Your task to perform on an android device: change the upload size in google photos Image 0: 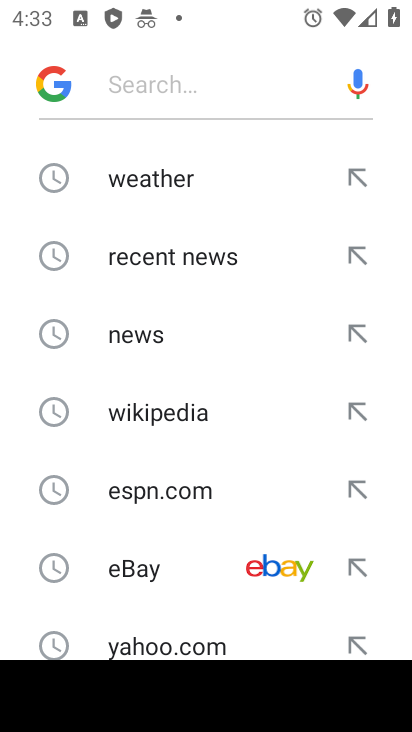
Step 0: press home button
Your task to perform on an android device: change the upload size in google photos Image 1: 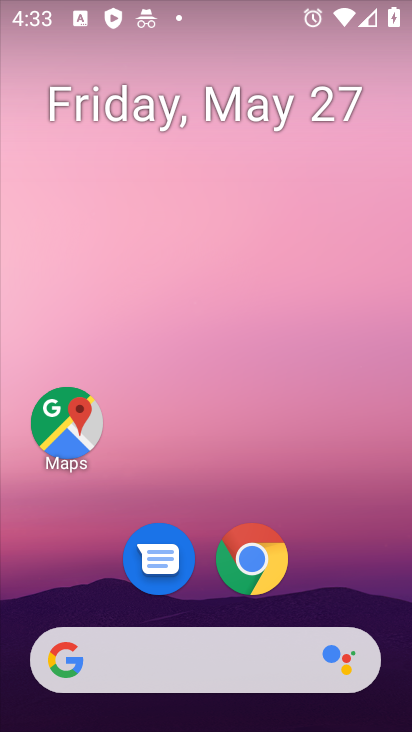
Step 1: drag from (322, 680) to (279, 41)
Your task to perform on an android device: change the upload size in google photos Image 2: 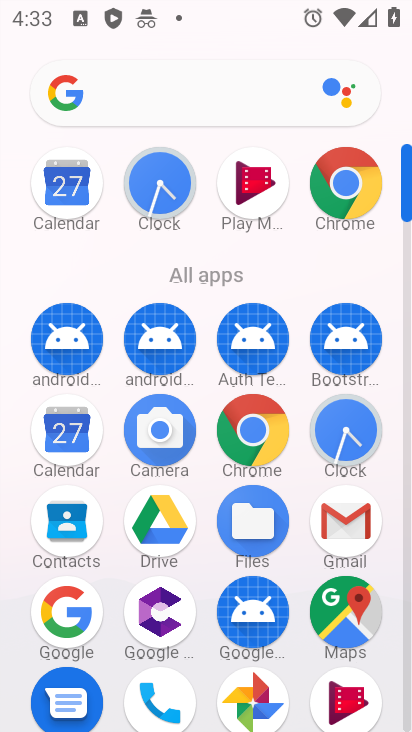
Step 2: drag from (287, 615) to (300, 145)
Your task to perform on an android device: change the upload size in google photos Image 3: 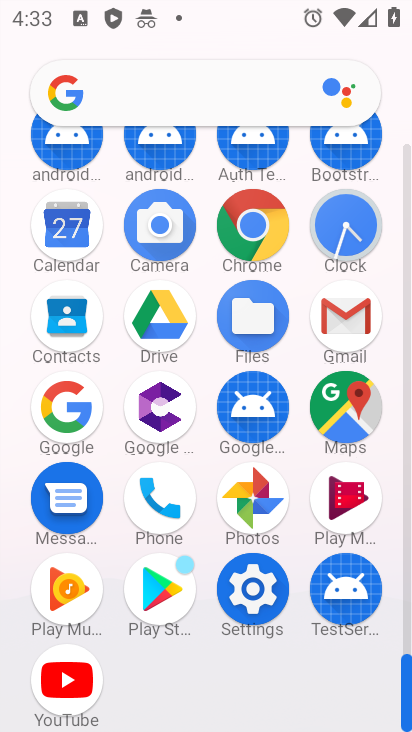
Step 3: click (257, 502)
Your task to perform on an android device: change the upload size in google photos Image 4: 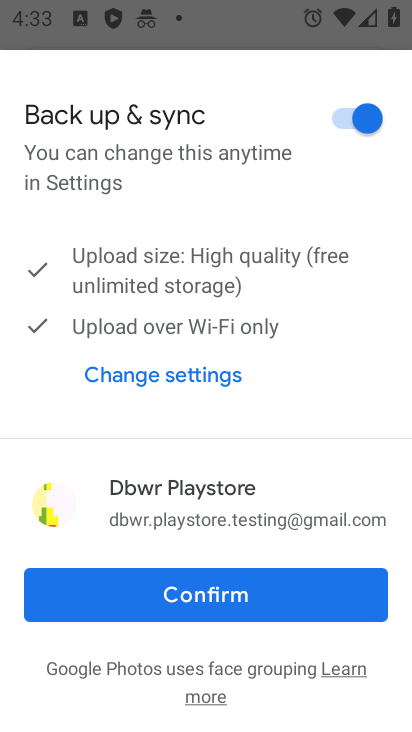
Step 4: click (232, 610)
Your task to perform on an android device: change the upload size in google photos Image 5: 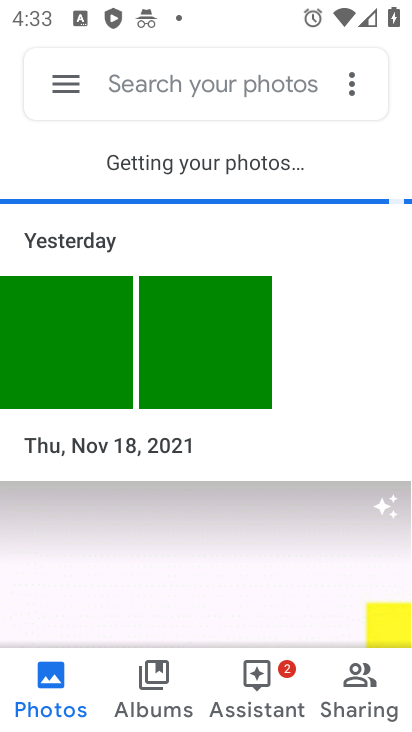
Step 5: click (357, 84)
Your task to perform on an android device: change the upload size in google photos Image 6: 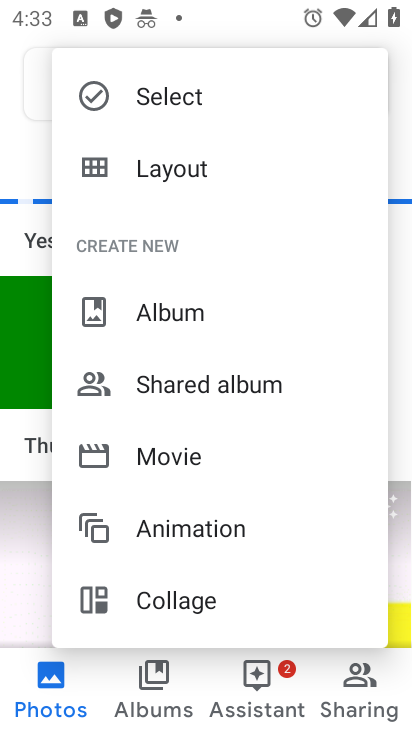
Step 6: click (28, 162)
Your task to perform on an android device: change the upload size in google photos Image 7: 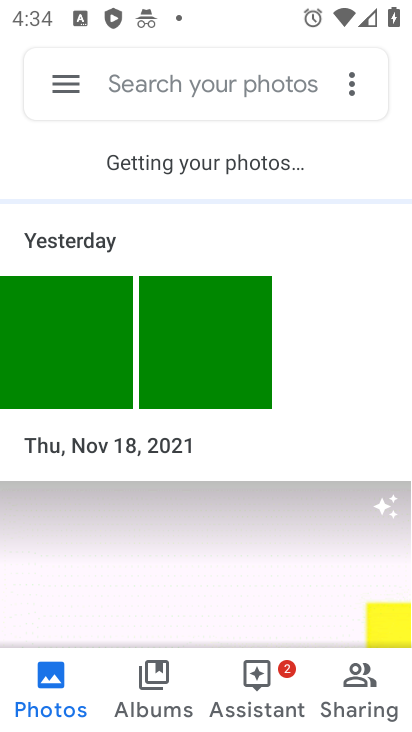
Step 7: click (57, 85)
Your task to perform on an android device: change the upload size in google photos Image 8: 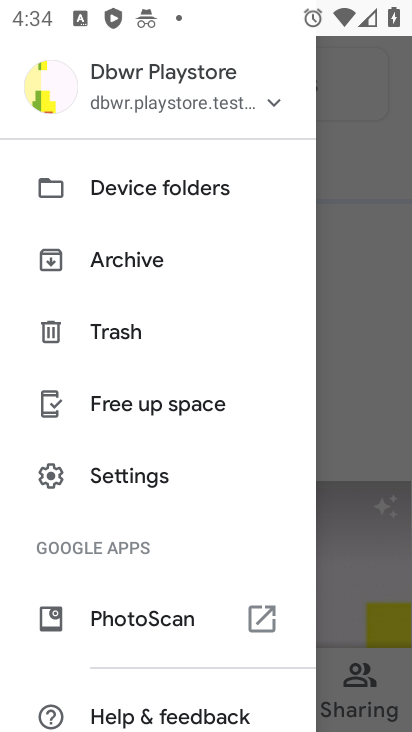
Step 8: click (159, 478)
Your task to perform on an android device: change the upload size in google photos Image 9: 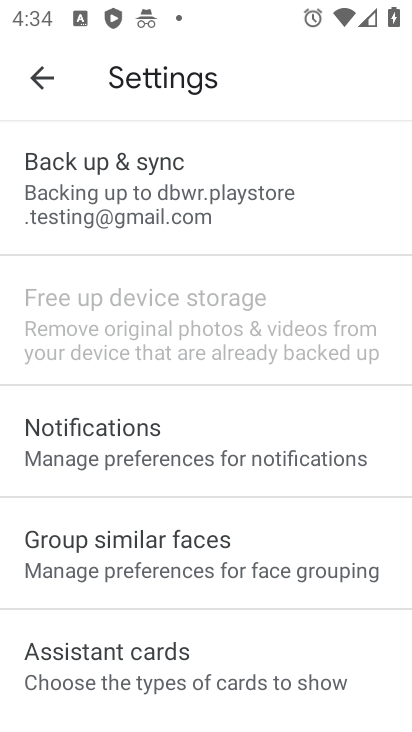
Step 9: click (147, 195)
Your task to perform on an android device: change the upload size in google photos Image 10: 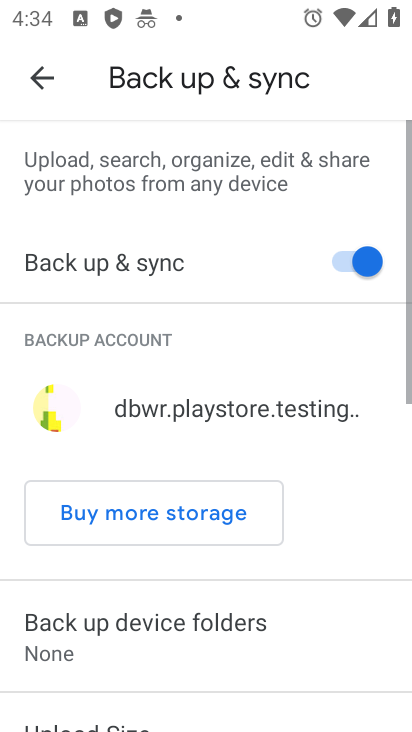
Step 10: drag from (255, 552) to (255, 125)
Your task to perform on an android device: change the upload size in google photos Image 11: 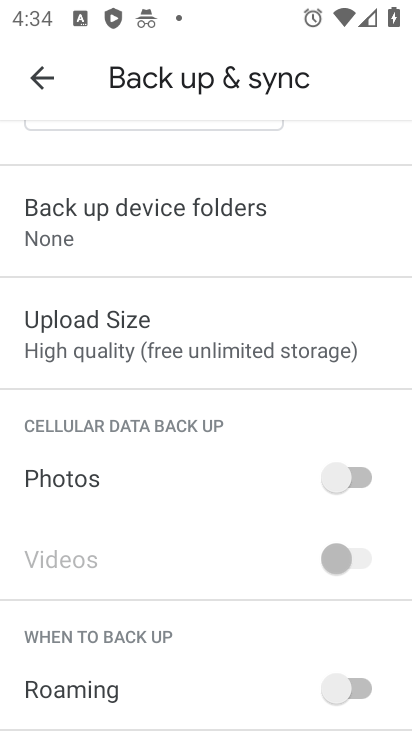
Step 11: click (242, 302)
Your task to perform on an android device: change the upload size in google photos Image 12: 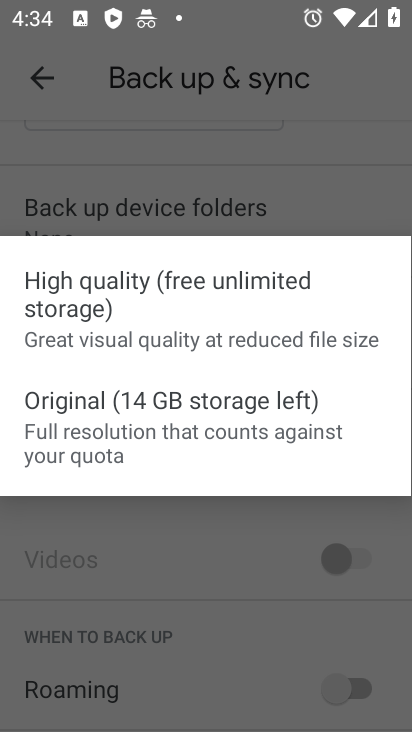
Step 12: click (156, 434)
Your task to perform on an android device: change the upload size in google photos Image 13: 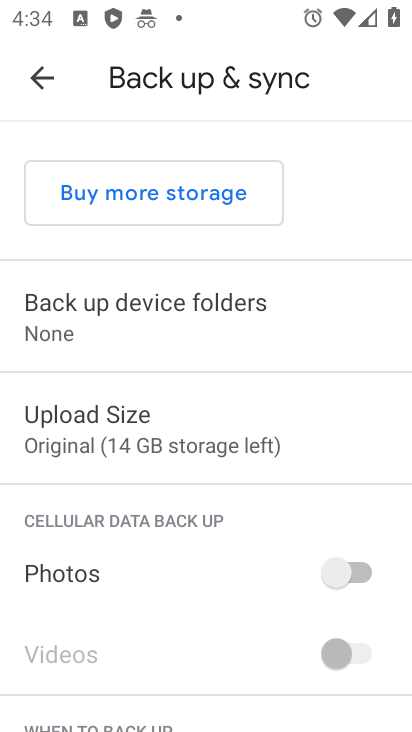
Step 13: task complete